Your task to perform on an android device: Show me popular videos on Youtube Image 0: 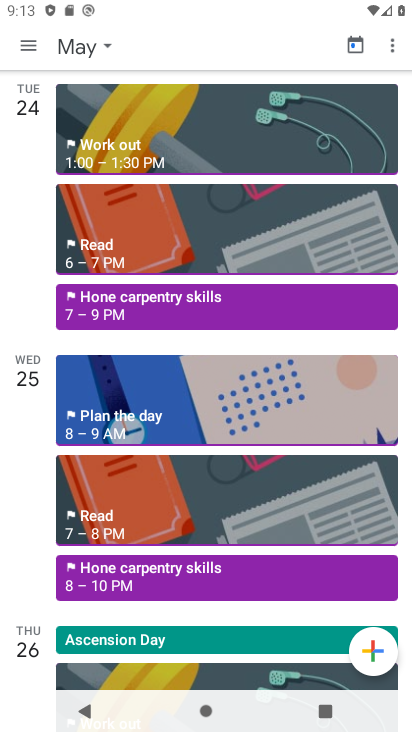
Step 0: press home button
Your task to perform on an android device: Show me popular videos on Youtube Image 1: 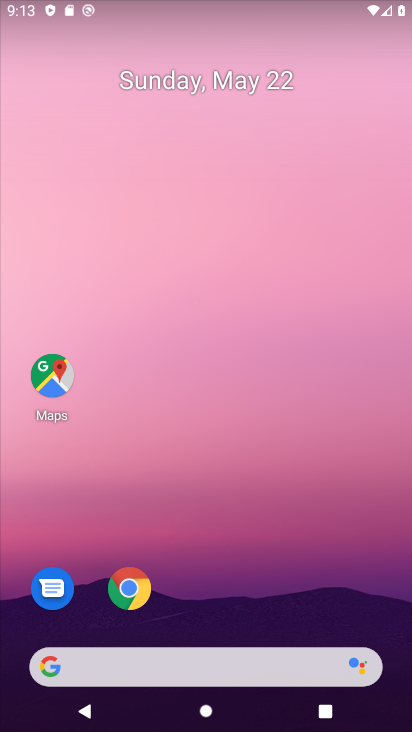
Step 1: drag from (284, 591) to (285, 53)
Your task to perform on an android device: Show me popular videos on Youtube Image 2: 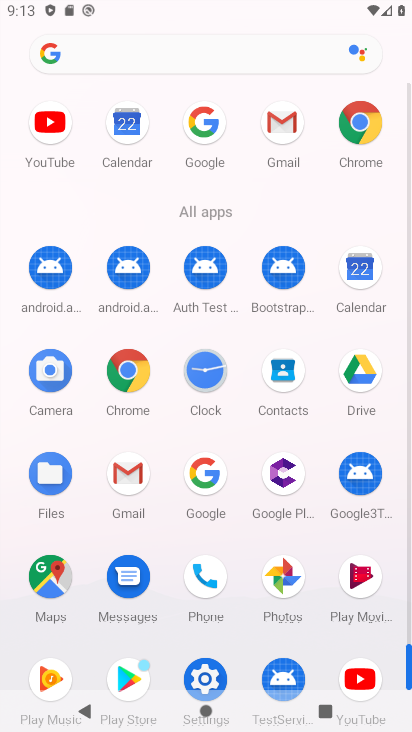
Step 2: drag from (251, 230) to (257, 0)
Your task to perform on an android device: Show me popular videos on Youtube Image 3: 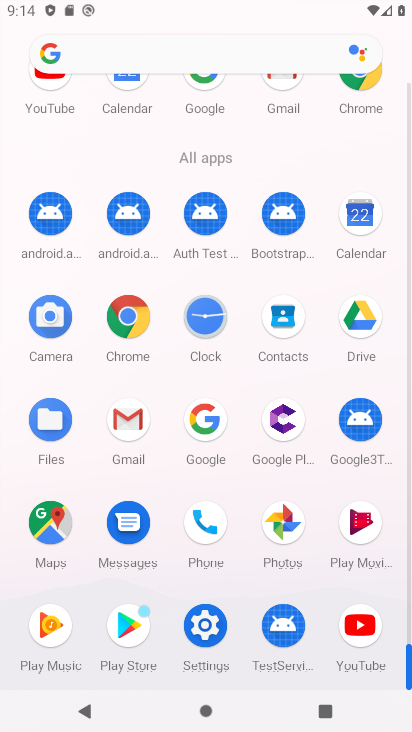
Step 3: click (357, 624)
Your task to perform on an android device: Show me popular videos on Youtube Image 4: 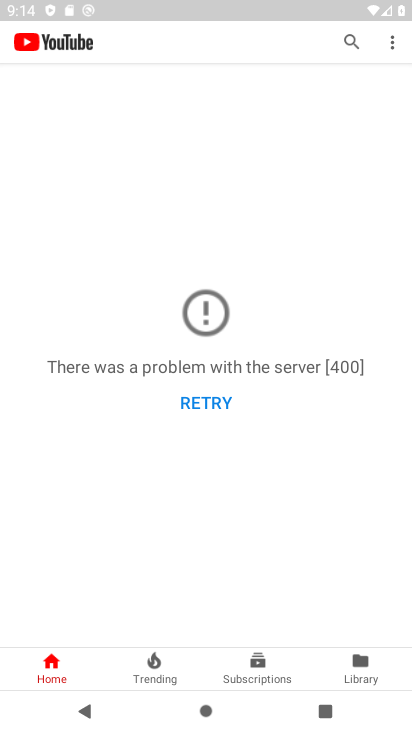
Step 4: click (391, 43)
Your task to perform on an android device: Show me popular videos on Youtube Image 5: 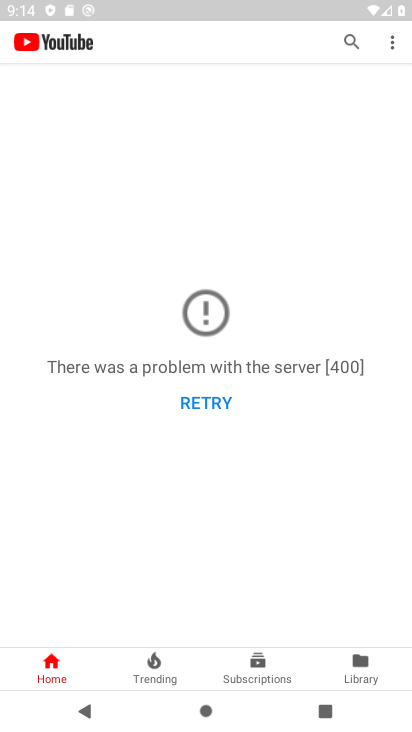
Step 5: task complete